Your task to perform on an android device: Open calendar and show me the fourth week of next month Image 0: 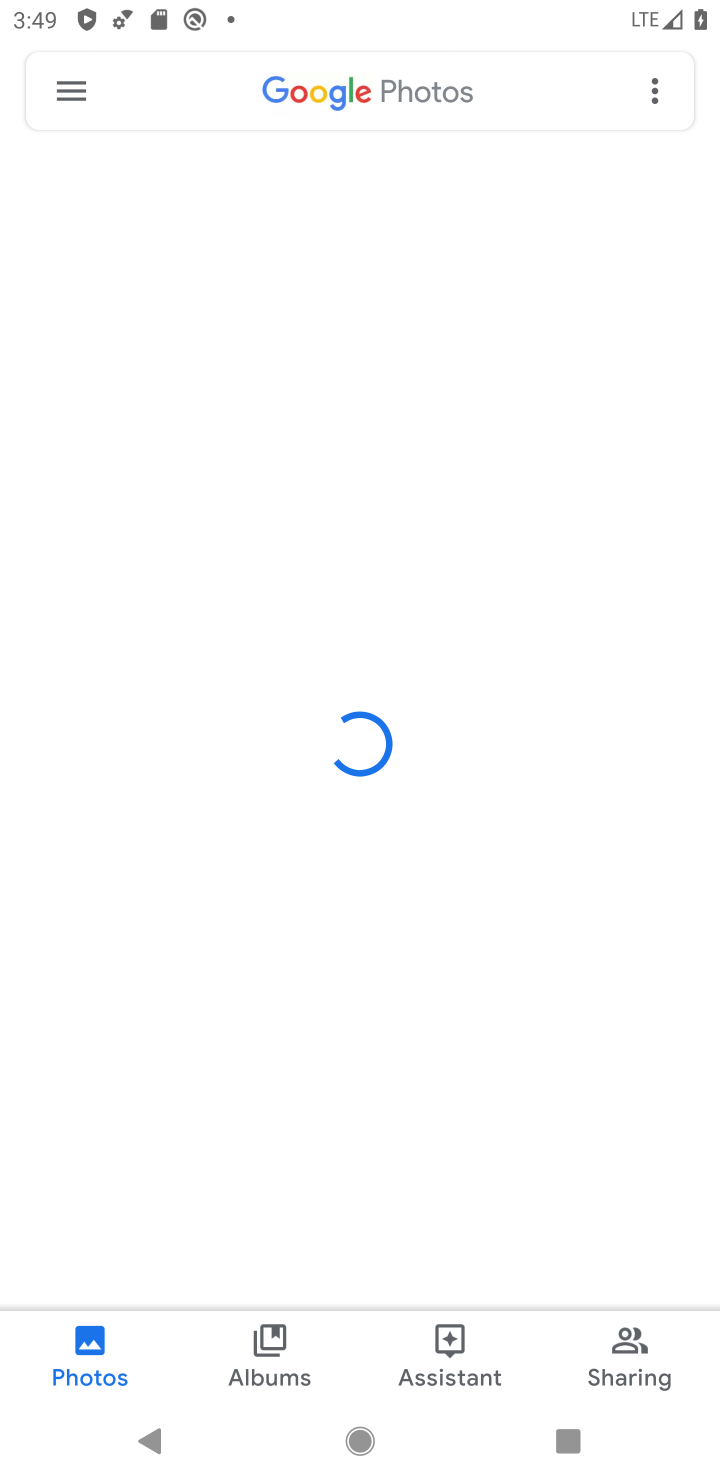
Step 0: press back button
Your task to perform on an android device: Open calendar and show me the fourth week of next month Image 1: 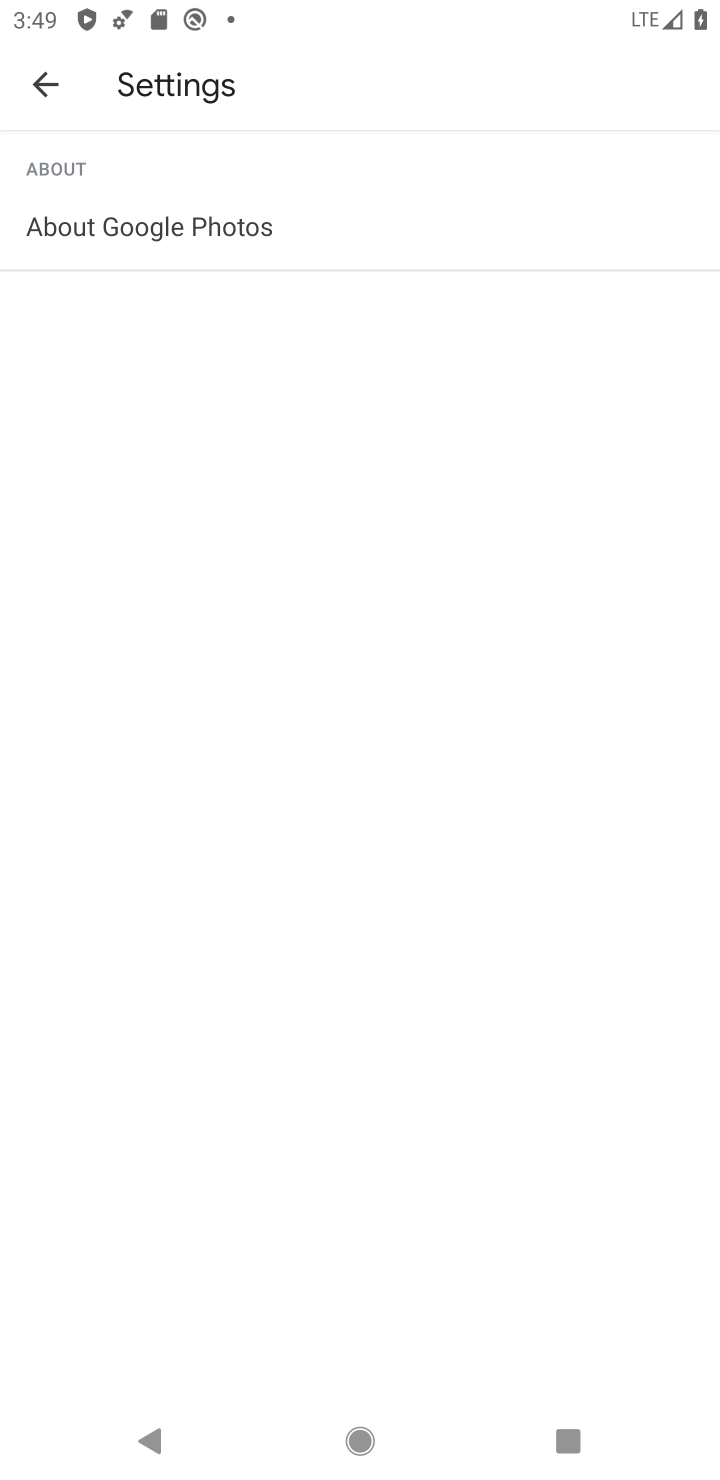
Step 1: press home button
Your task to perform on an android device: Open calendar and show me the fourth week of next month Image 2: 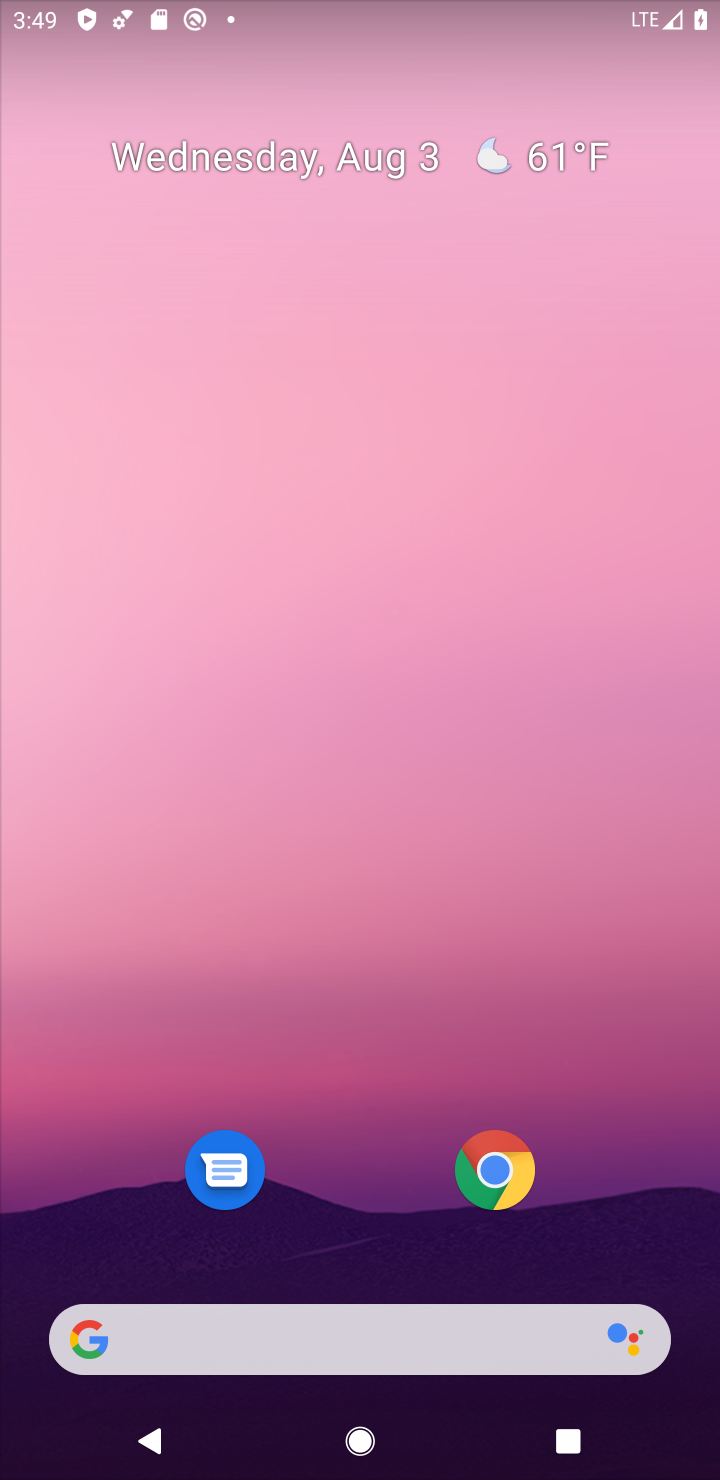
Step 2: drag from (334, 684) to (328, 497)
Your task to perform on an android device: Open calendar and show me the fourth week of next month Image 3: 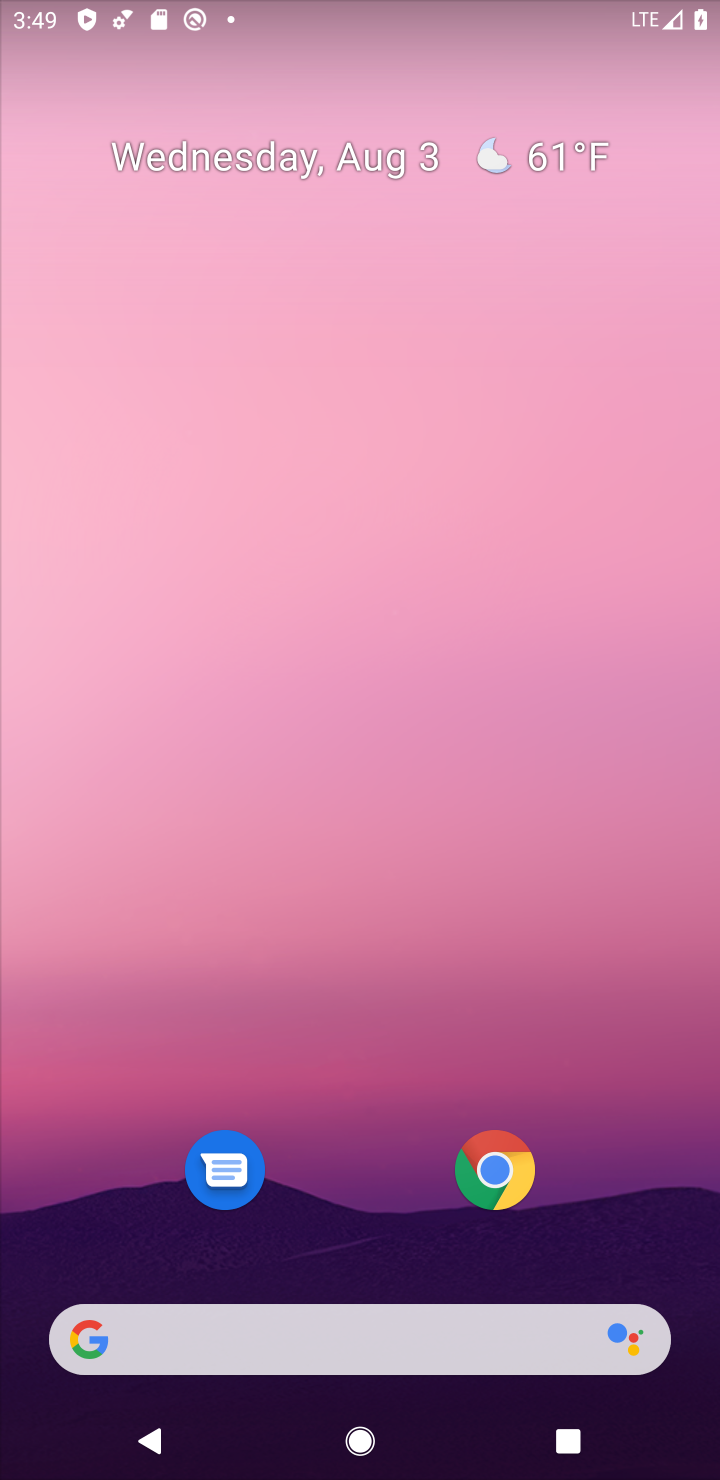
Step 3: drag from (300, 1123) to (302, 281)
Your task to perform on an android device: Open calendar and show me the fourth week of next month Image 4: 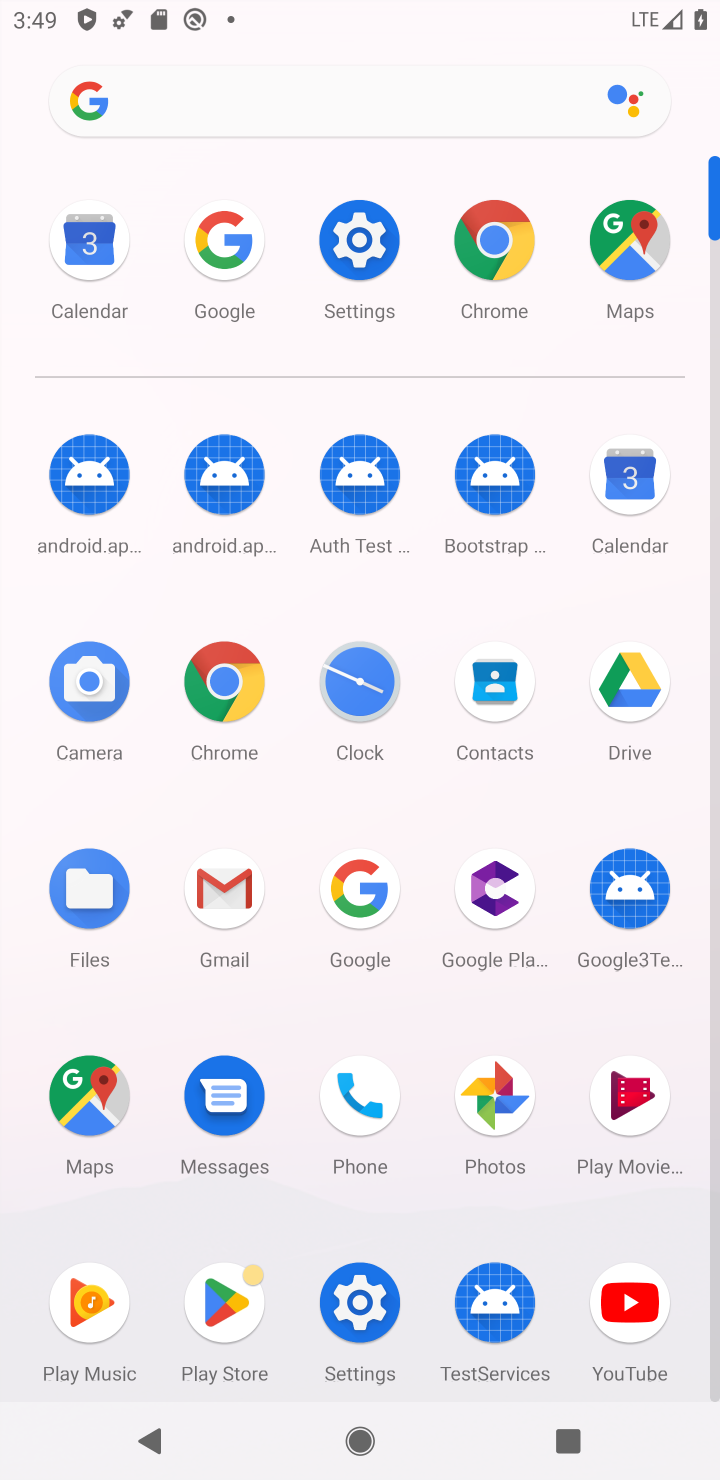
Step 4: click (634, 509)
Your task to perform on an android device: Open calendar and show me the fourth week of next month Image 5: 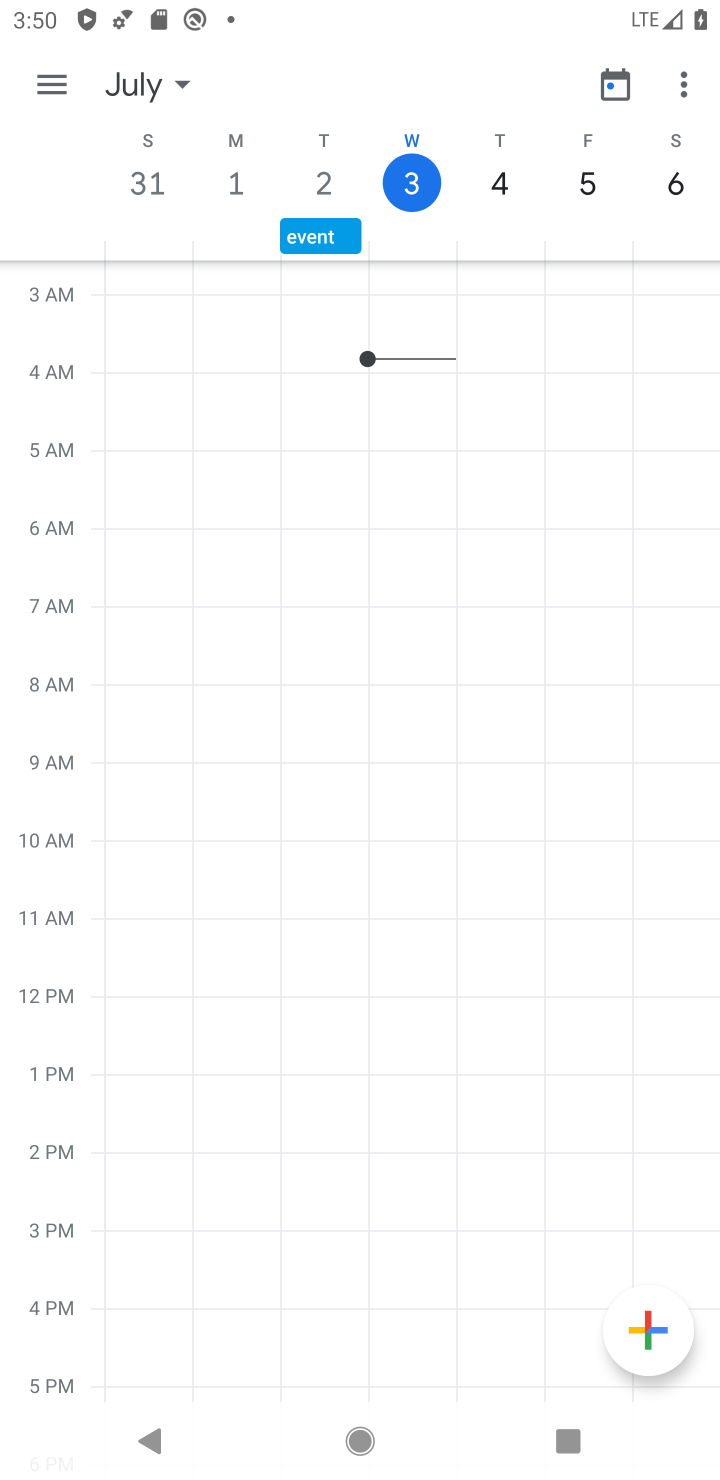
Step 5: click (132, 88)
Your task to perform on an android device: Open calendar and show me the fourth week of next month Image 6: 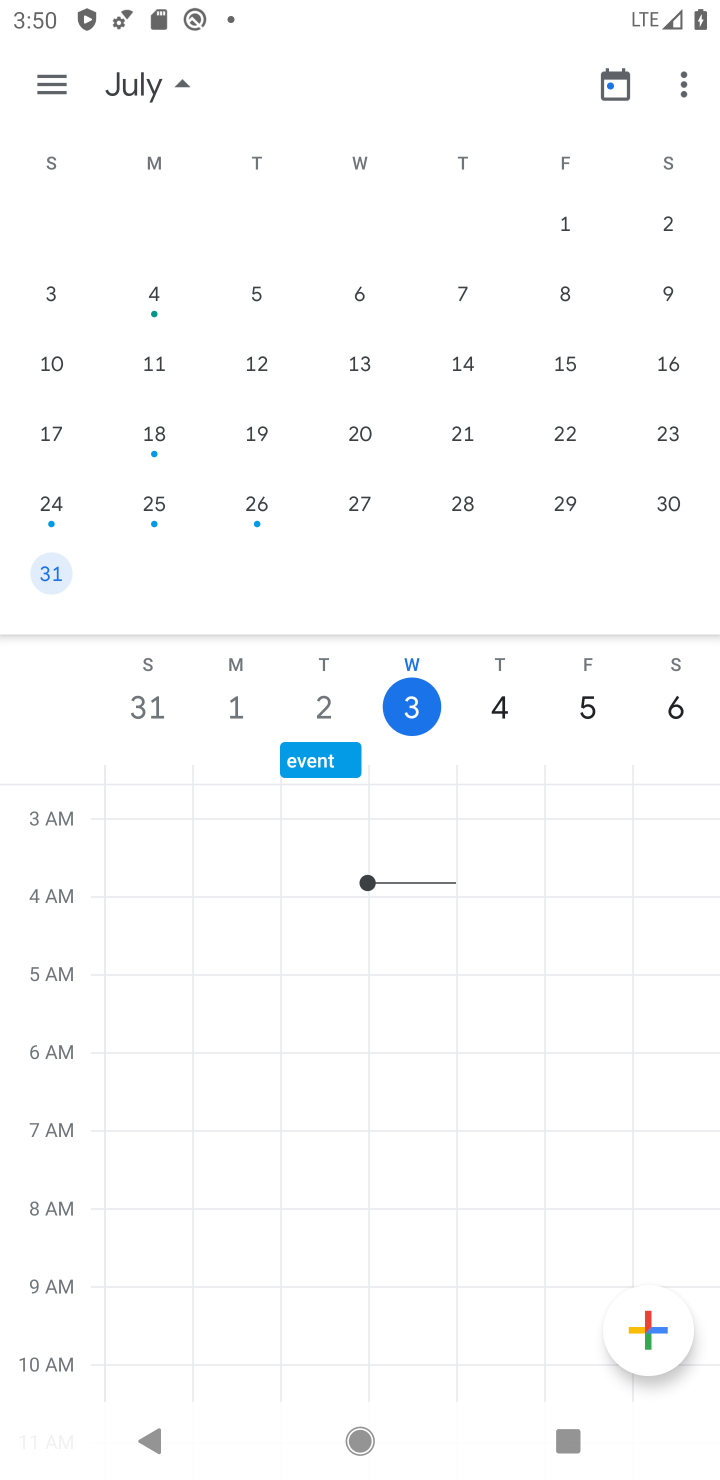
Step 6: drag from (254, 377) to (58, 392)
Your task to perform on an android device: Open calendar and show me the fourth week of next month Image 7: 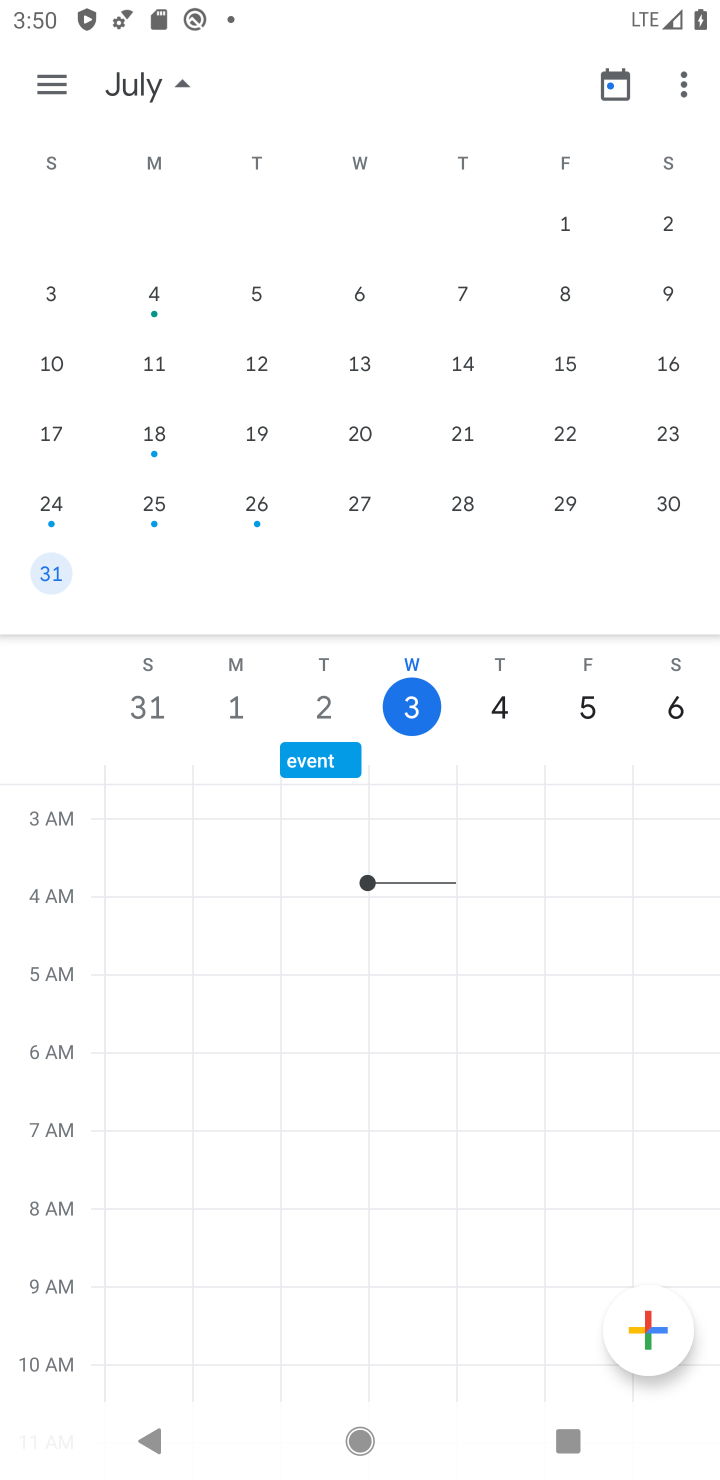
Step 7: drag from (640, 392) to (17, 393)
Your task to perform on an android device: Open calendar and show me the fourth week of next month Image 8: 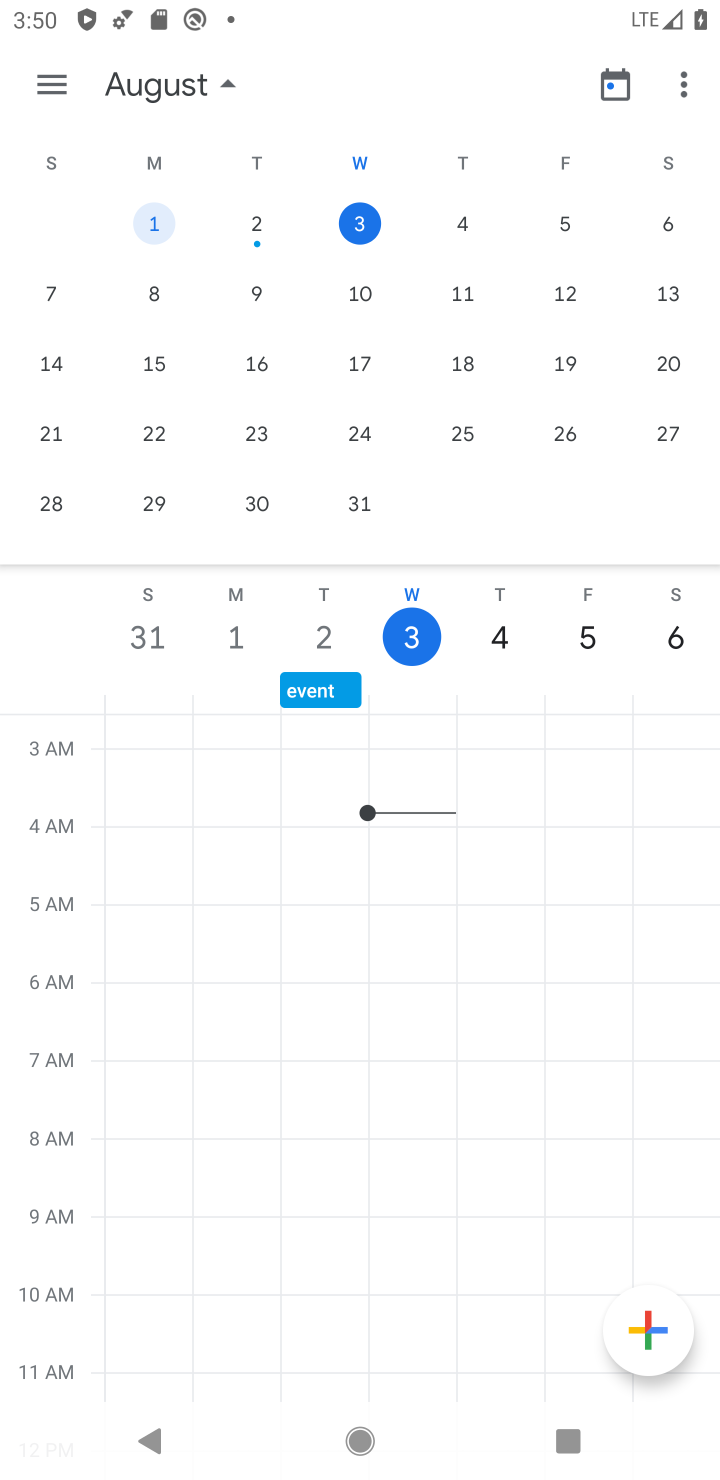
Step 8: click (19, 356)
Your task to perform on an android device: Open calendar and show me the fourth week of next month Image 9: 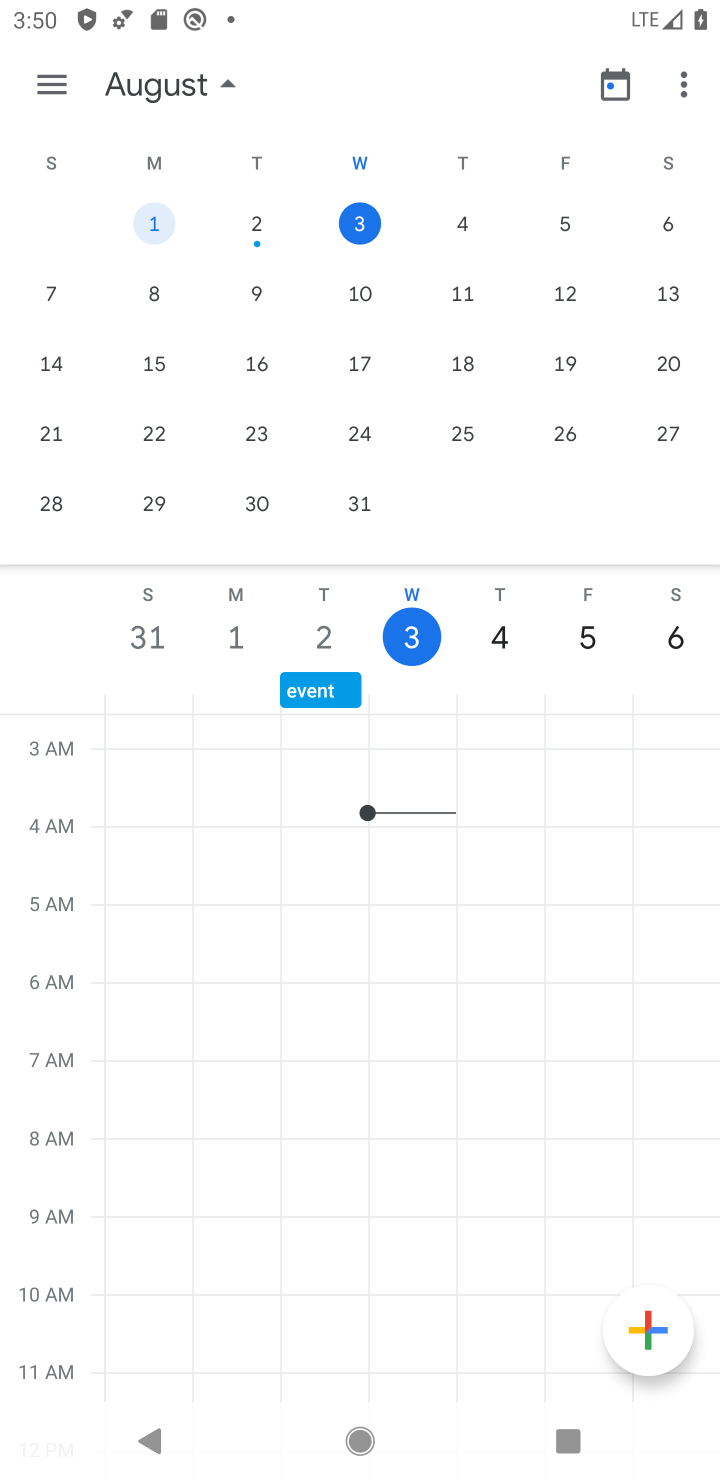
Step 9: drag from (409, 375) to (89, 393)
Your task to perform on an android device: Open calendar and show me the fourth week of next month Image 10: 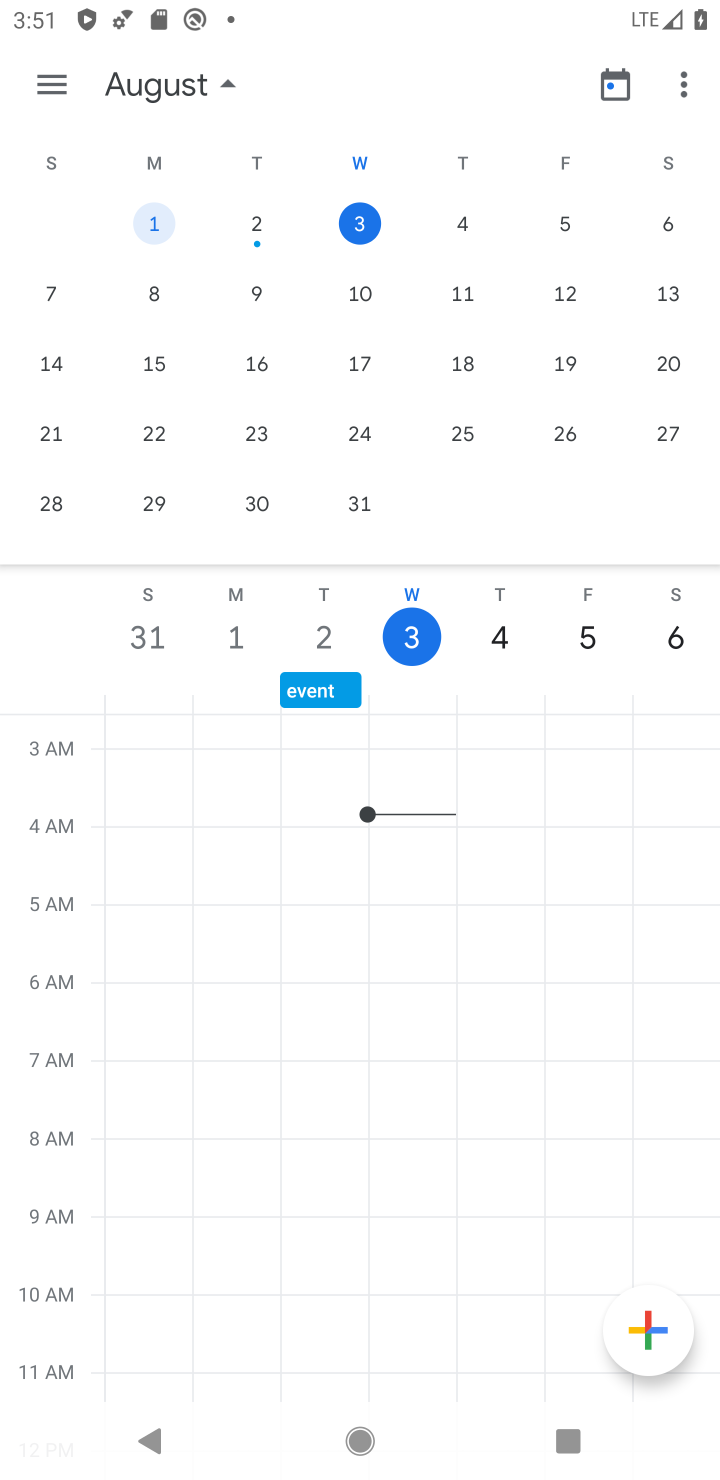
Step 10: drag from (116, 385) to (47, 401)
Your task to perform on an android device: Open calendar and show me the fourth week of next month Image 11: 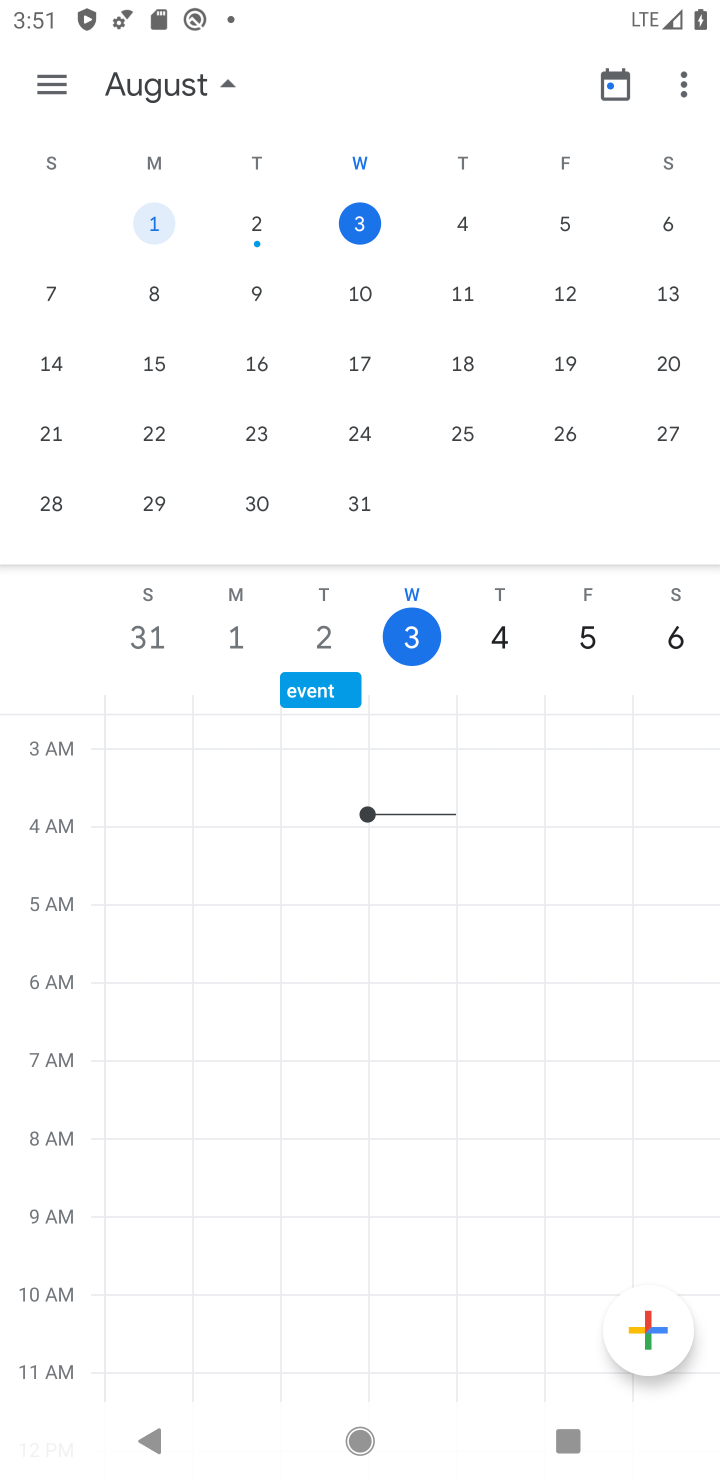
Step 11: drag from (521, 340) to (17, 450)
Your task to perform on an android device: Open calendar and show me the fourth week of next month Image 12: 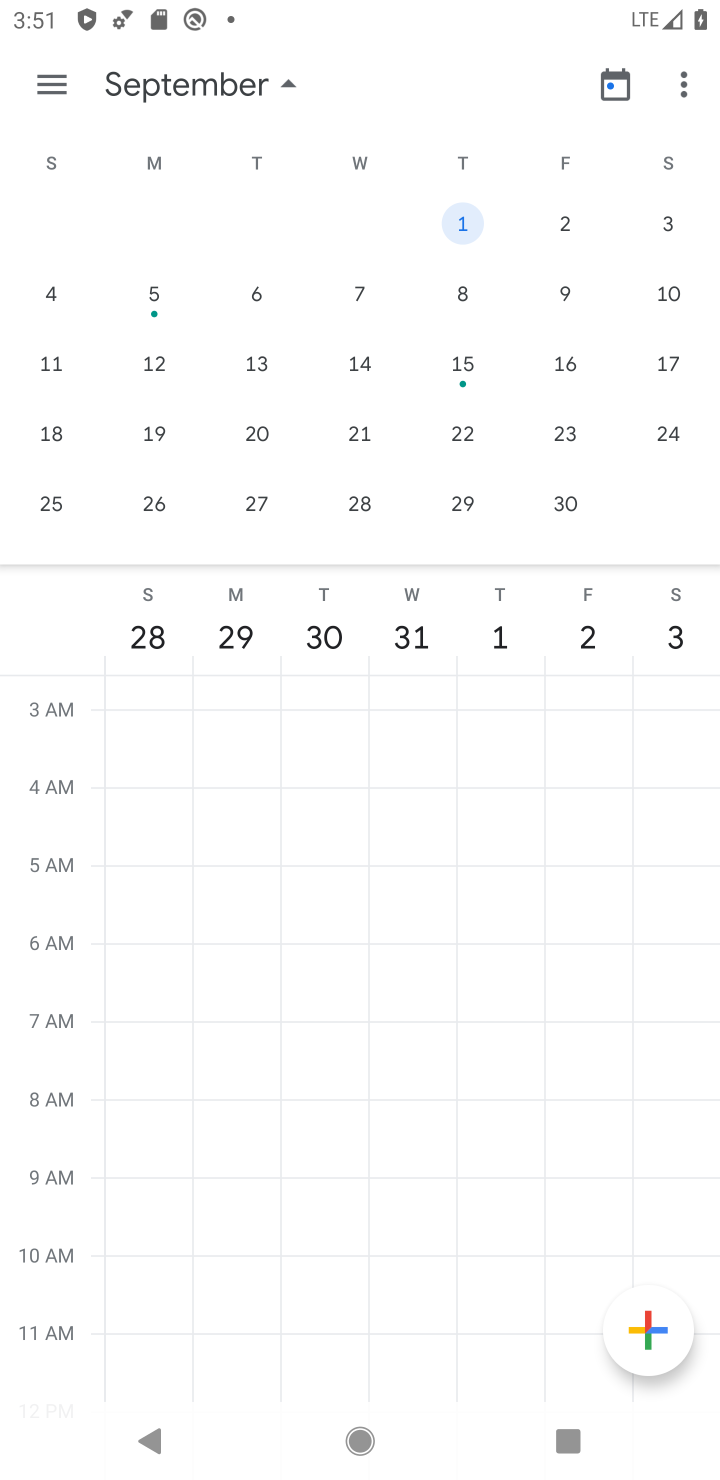
Step 12: drag from (532, 330) to (1, 359)
Your task to perform on an android device: Open calendar and show me the fourth week of next month Image 13: 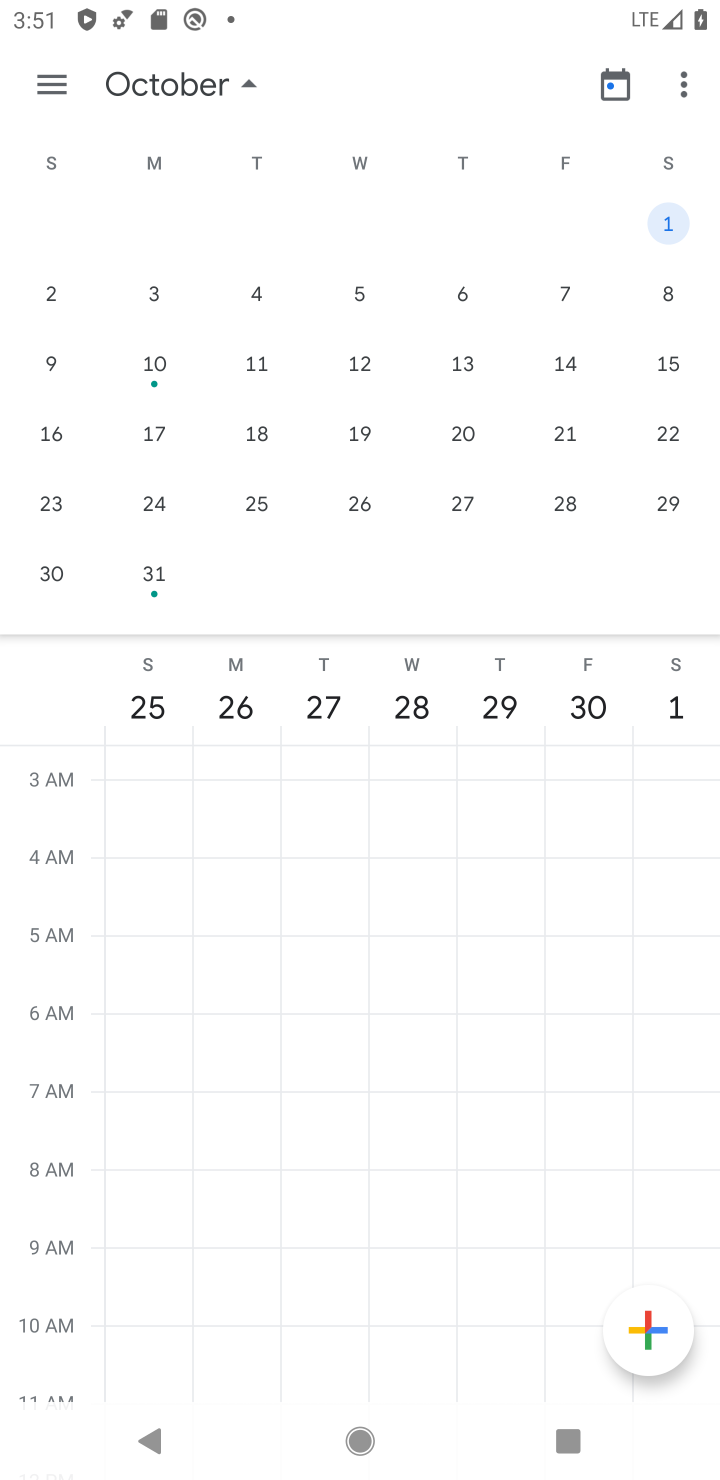
Step 13: click (44, 512)
Your task to perform on an android device: Open calendar and show me the fourth week of next month Image 14: 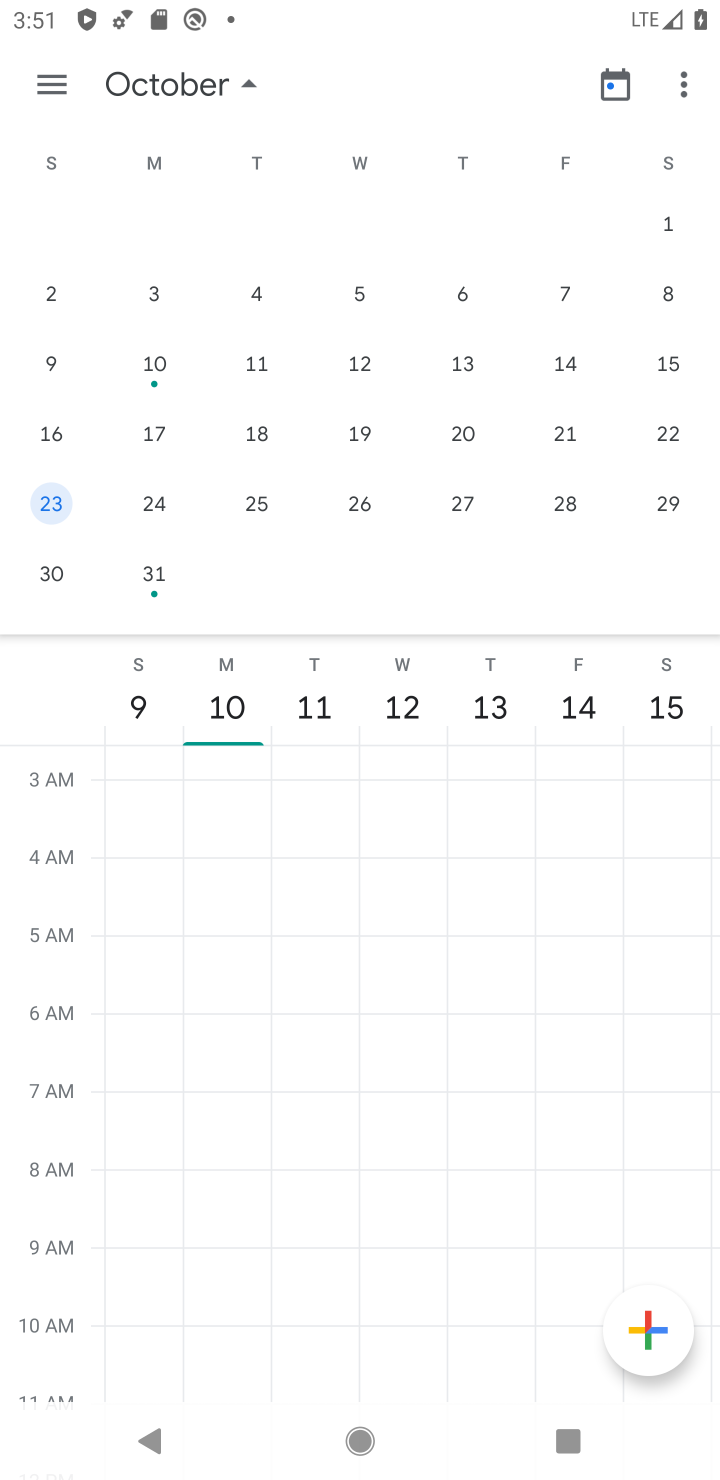
Step 14: click (44, 512)
Your task to perform on an android device: Open calendar and show me the fourth week of next month Image 15: 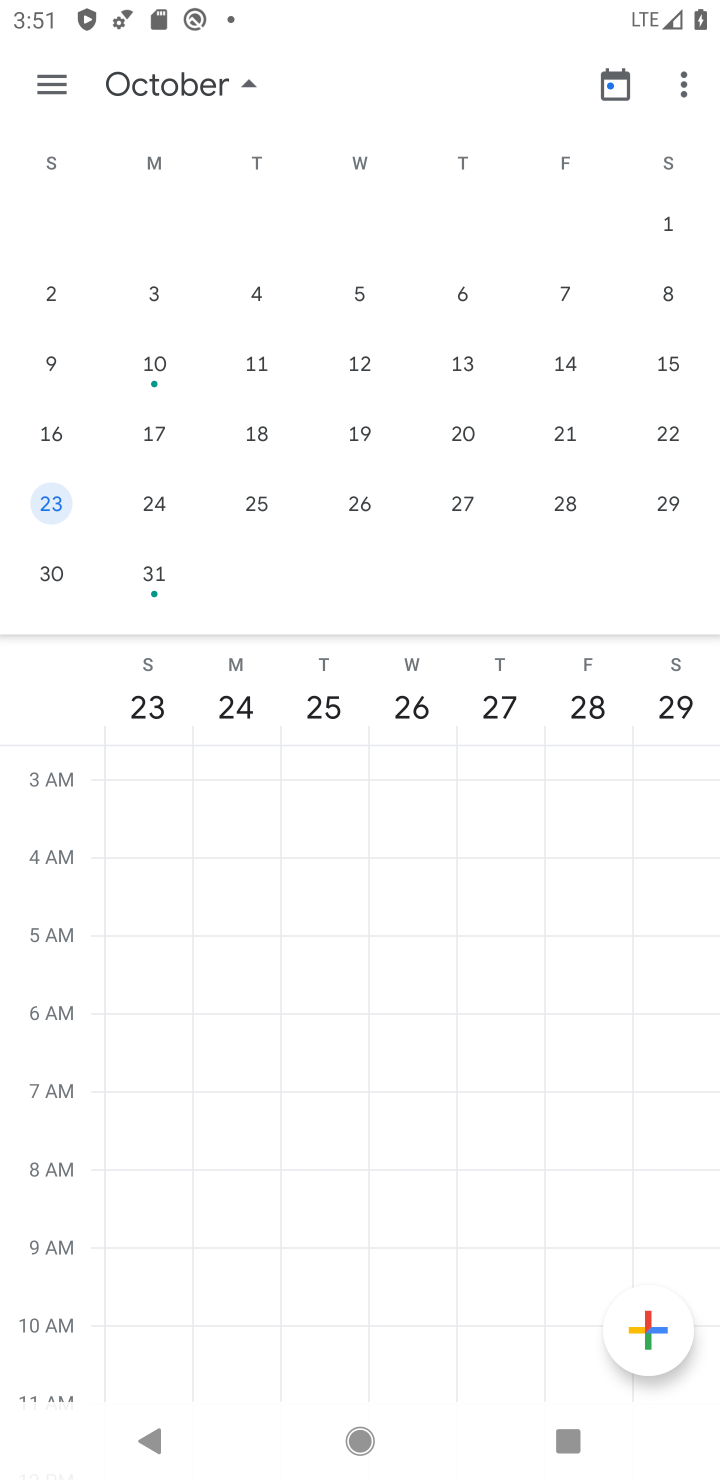
Step 15: task complete